Your task to perform on an android device: clear history in the chrome app Image 0: 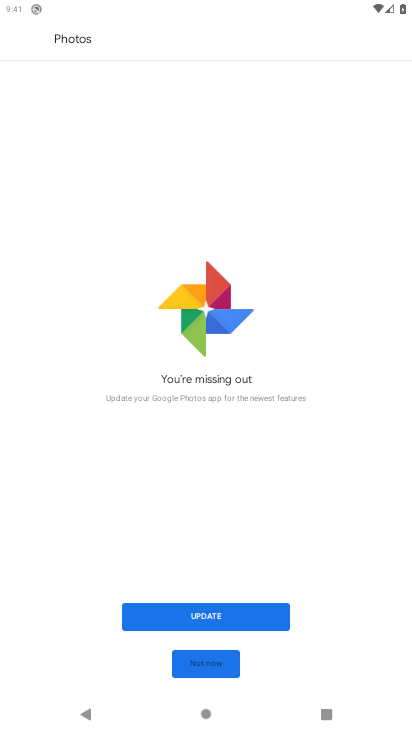
Step 0: press home button
Your task to perform on an android device: clear history in the chrome app Image 1: 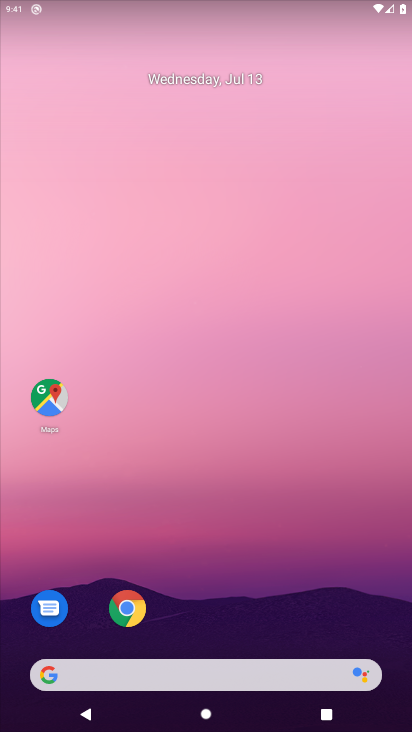
Step 1: click (122, 616)
Your task to perform on an android device: clear history in the chrome app Image 2: 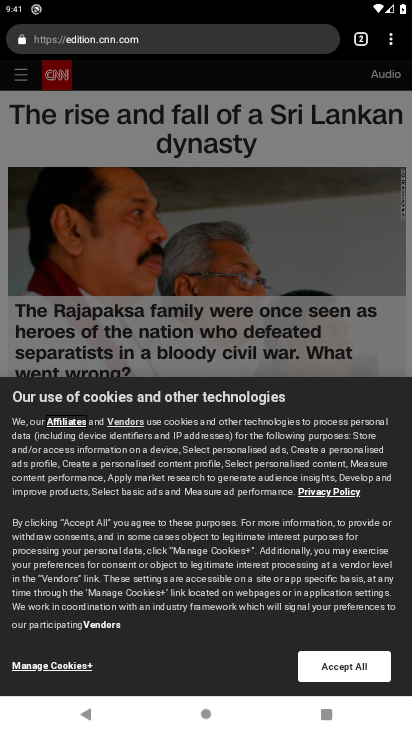
Step 2: click (392, 37)
Your task to perform on an android device: clear history in the chrome app Image 3: 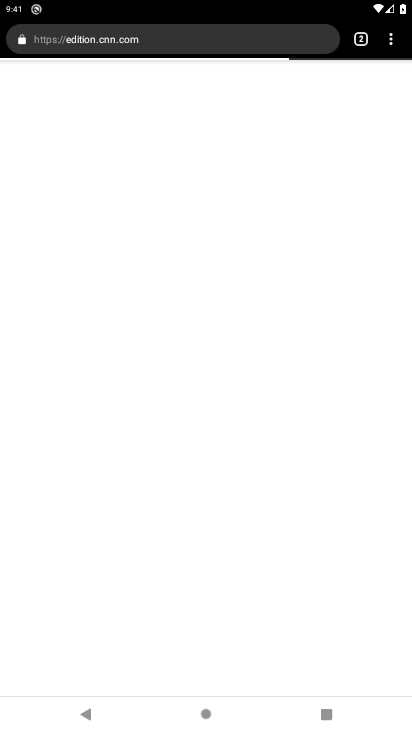
Step 3: click (390, 38)
Your task to perform on an android device: clear history in the chrome app Image 4: 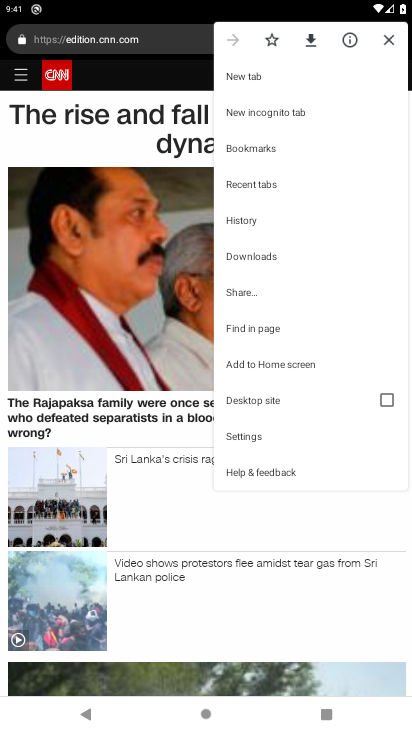
Step 4: click (249, 221)
Your task to perform on an android device: clear history in the chrome app Image 5: 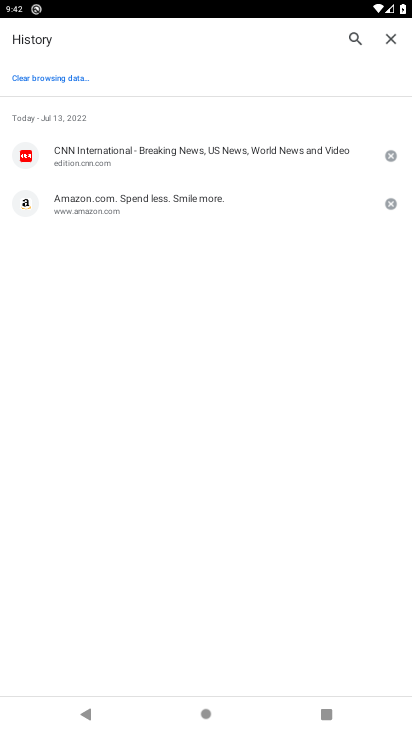
Step 5: click (47, 82)
Your task to perform on an android device: clear history in the chrome app Image 6: 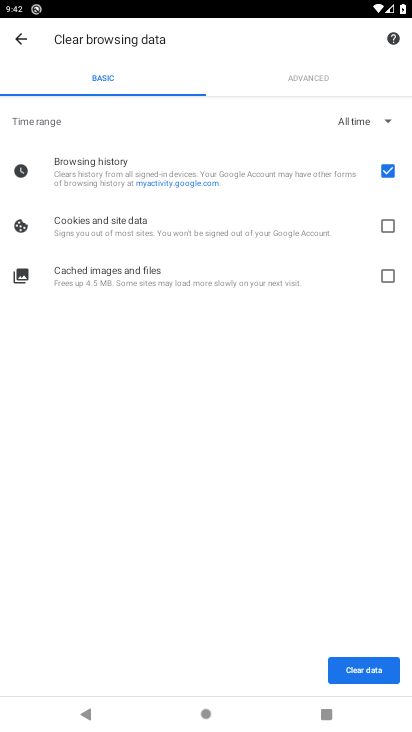
Step 6: click (368, 670)
Your task to perform on an android device: clear history in the chrome app Image 7: 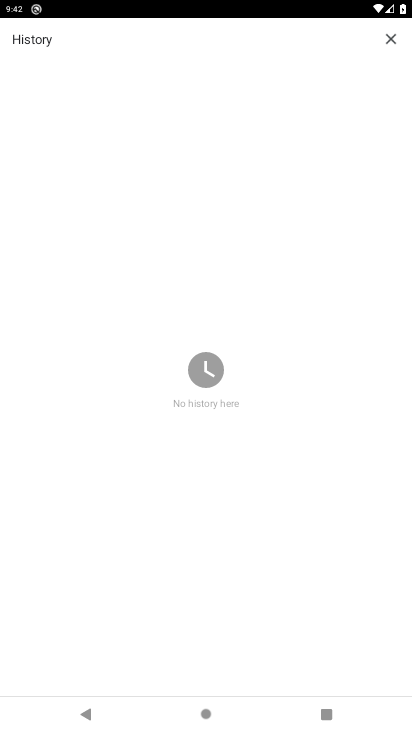
Step 7: task complete